Your task to perform on an android device: toggle javascript in the chrome app Image 0: 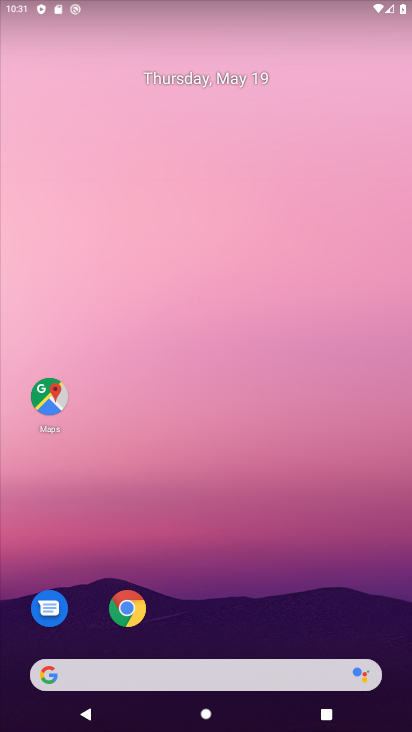
Step 0: click (109, 603)
Your task to perform on an android device: toggle javascript in the chrome app Image 1: 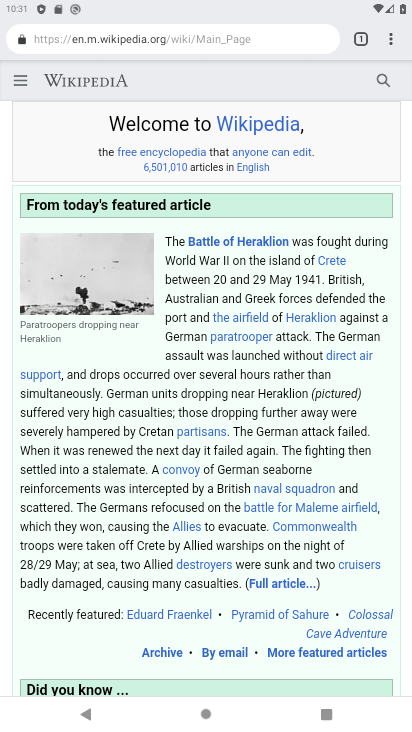
Step 1: click (391, 35)
Your task to perform on an android device: toggle javascript in the chrome app Image 2: 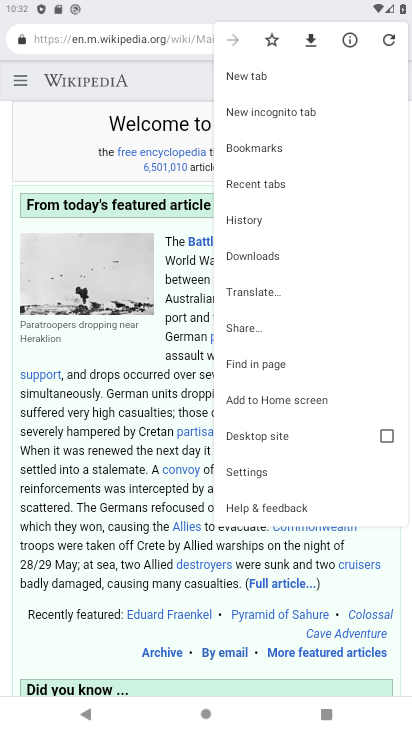
Step 2: click (249, 474)
Your task to perform on an android device: toggle javascript in the chrome app Image 3: 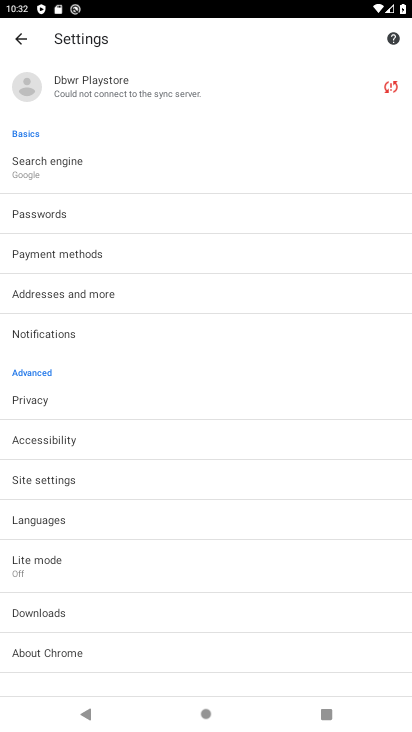
Step 3: click (46, 482)
Your task to perform on an android device: toggle javascript in the chrome app Image 4: 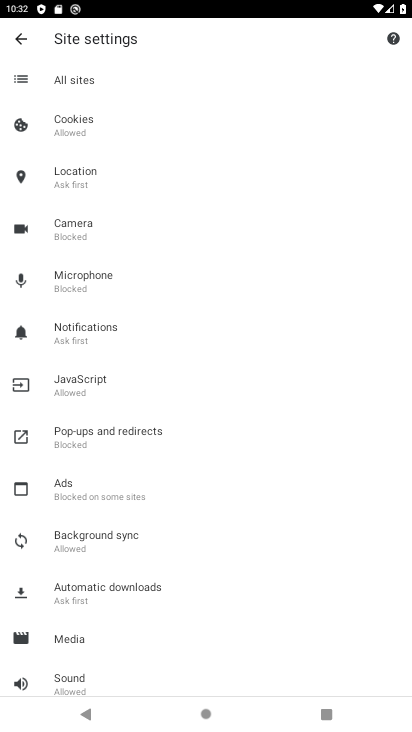
Step 4: click (70, 379)
Your task to perform on an android device: toggle javascript in the chrome app Image 5: 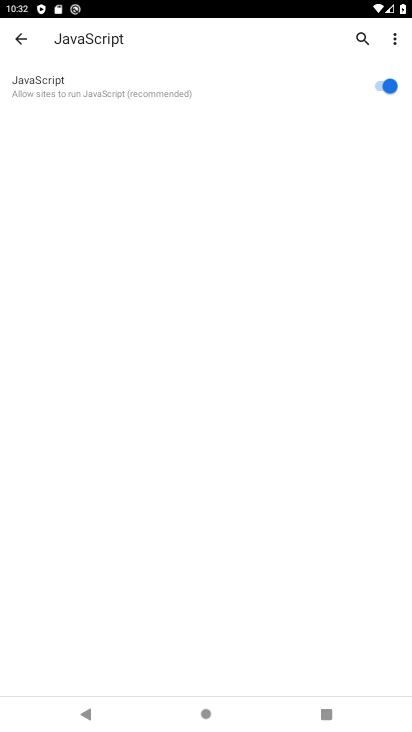
Step 5: click (377, 80)
Your task to perform on an android device: toggle javascript in the chrome app Image 6: 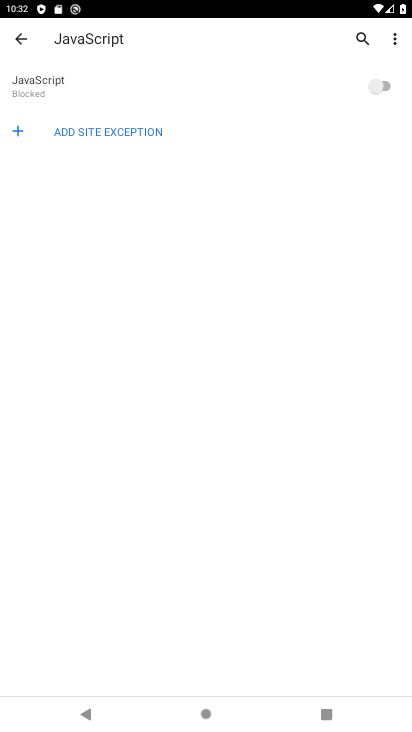
Step 6: task complete